Your task to perform on an android device: Go to internet settings Image 0: 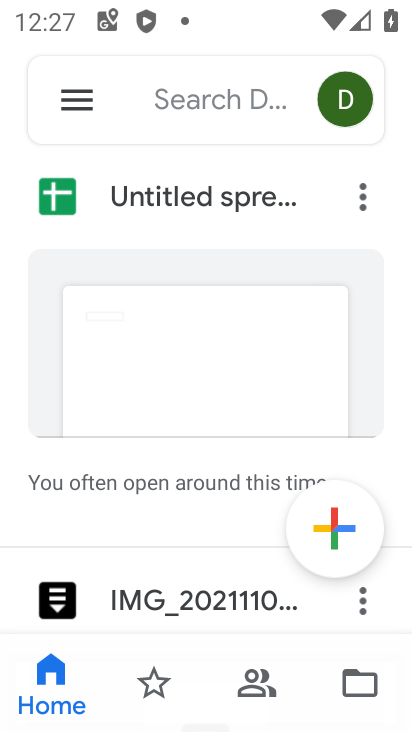
Step 0: press home button
Your task to perform on an android device: Go to internet settings Image 1: 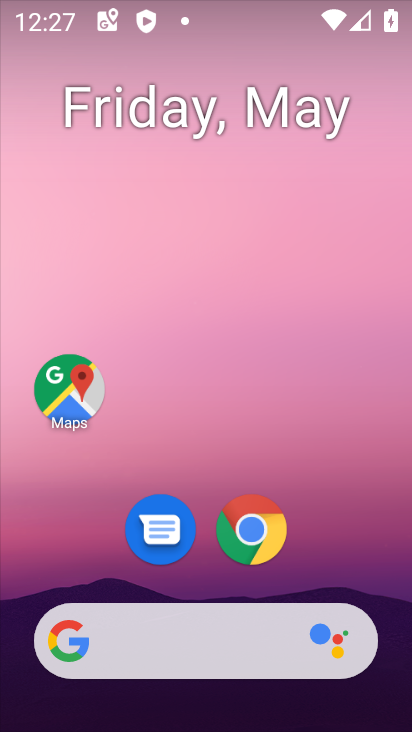
Step 1: drag from (302, 561) to (180, 71)
Your task to perform on an android device: Go to internet settings Image 2: 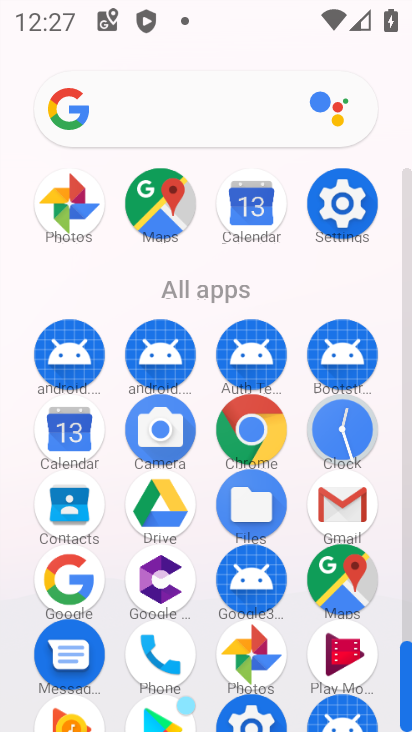
Step 2: click (317, 189)
Your task to perform on an android device: Go to internet settings Image 3: 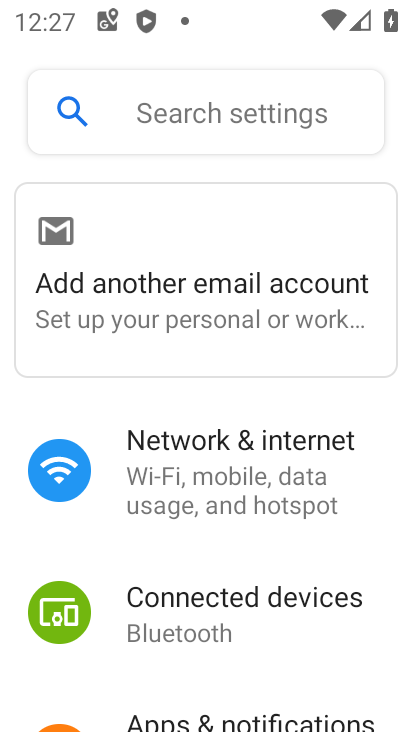
Step 3: click (234, 498)
Your task to perform on an android device: Go to internet settings Image 4: 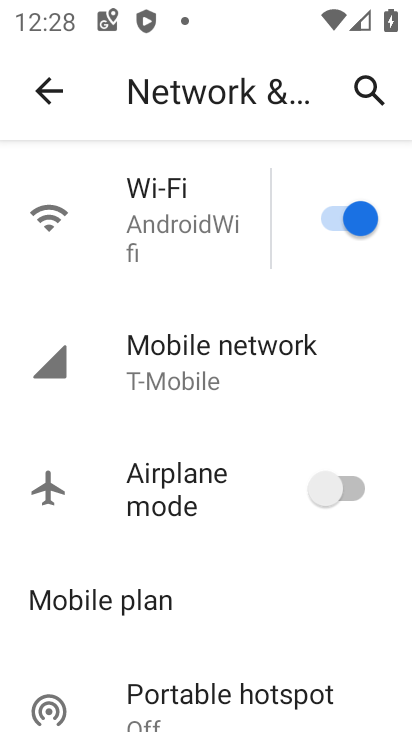
Step 4: task complete